Your task to perform on an android device: toggle wifi Image 0: 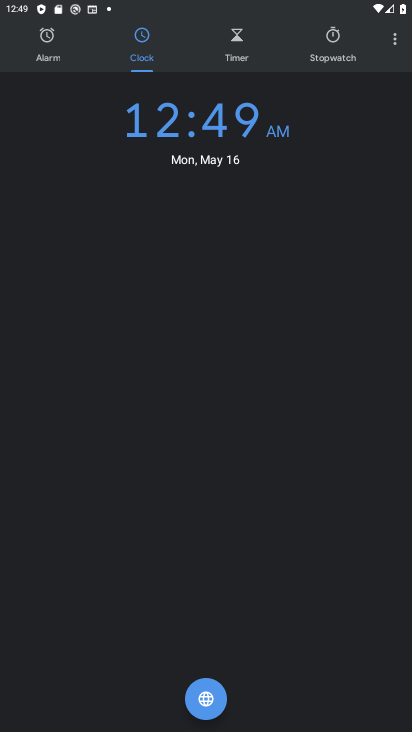
Step 0: press home button
Your task to perform on an android device: toggle wifi Image 1: 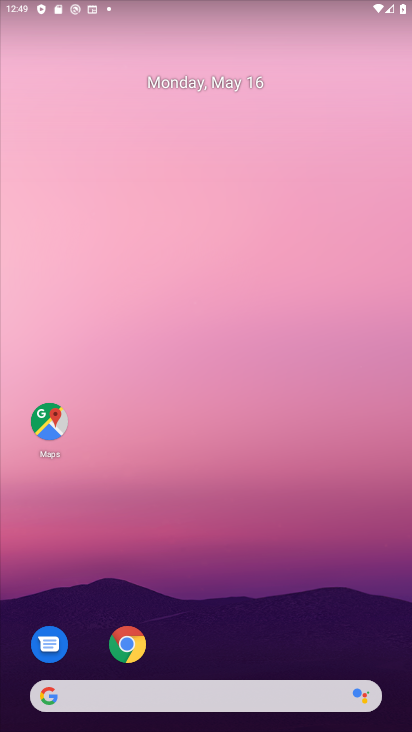
Step 1: drag from (217, 691) to (172, 122)
Your task to perform on an android device: toggle wifi Image 2: 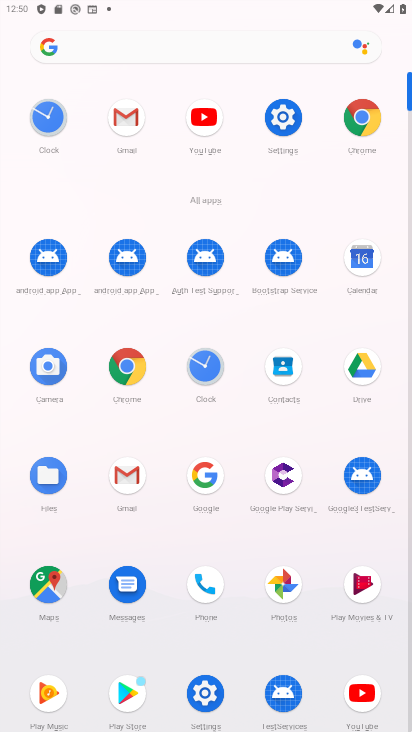
Step 2: click (276, 125)
Your task to perform on an android device: toggle wifi Image 3: 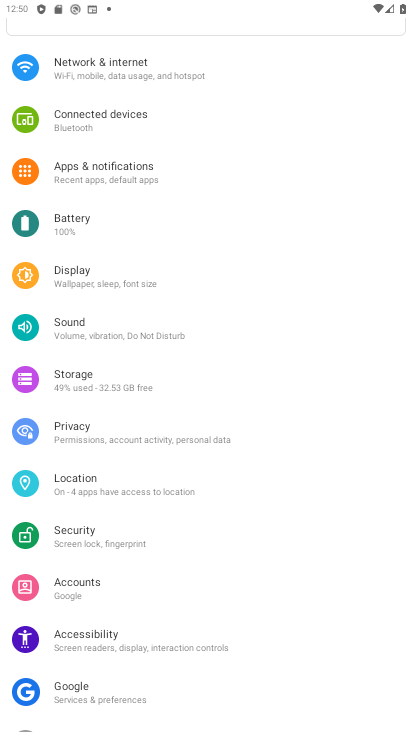
Step 3: click (89, 81)
Your task to perform on an android device: toggle wifi Image 4: 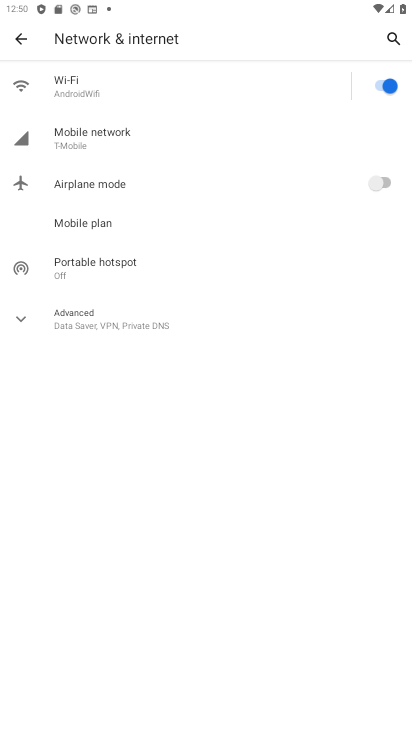
Step 4: click (386, 91)
Your task to perform on an android device: toggle wifi Image 5: 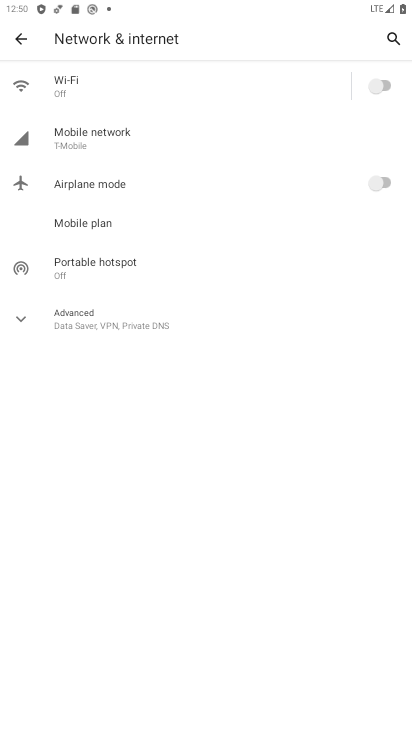
Step 5: task complete